Your task to perform on an android device: Open network settings Image 0: 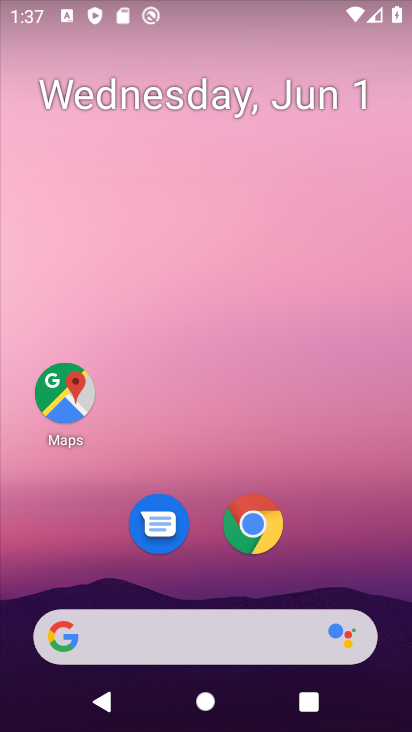
Step 0: drag from (329, 571) to (278, 3)
Your task to perform on an android device: Open network settings Image 1: 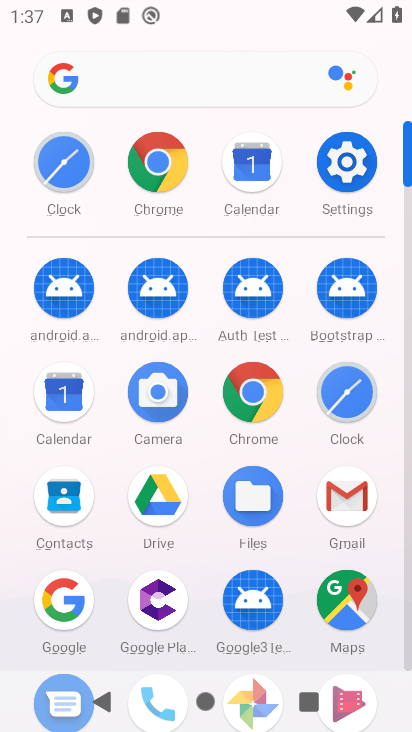
Step 1: click (348, 166)
Your task to perform on an android device: Open network settings Image 2: 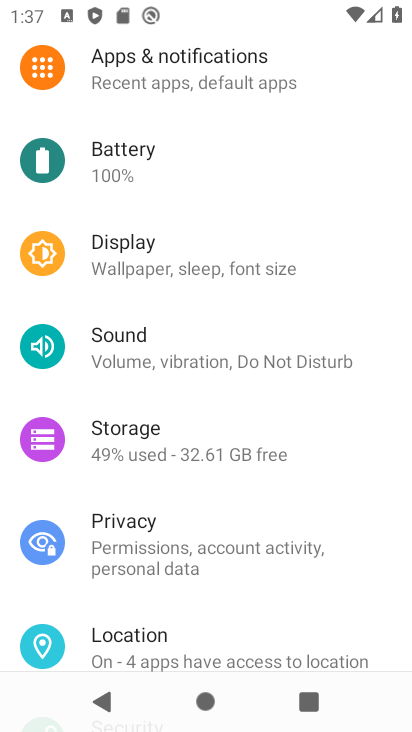
Step 2: drag from (245, 136) to (271, 495)
Your task to perform on an android device: Open network settings Image 3: 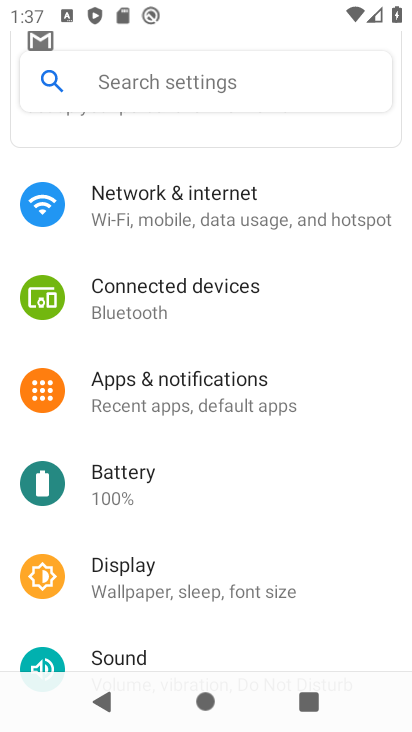
Step 3: click (249, 212)
Your task to perform on an android device: Open network settings Image 4: 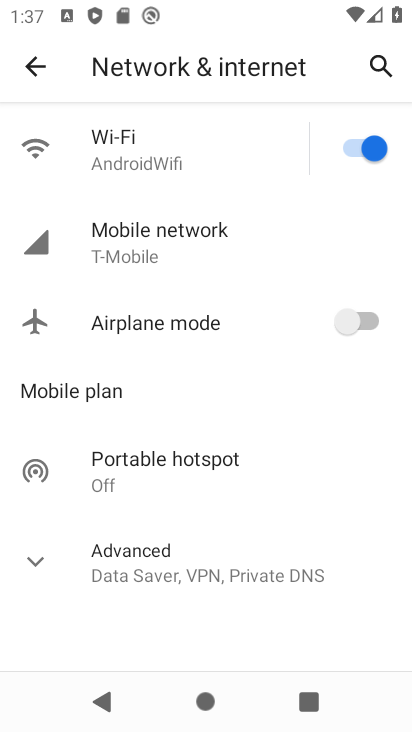
Step 4: task complete